Your task to perform on an android device: change notifications settings Image 0: 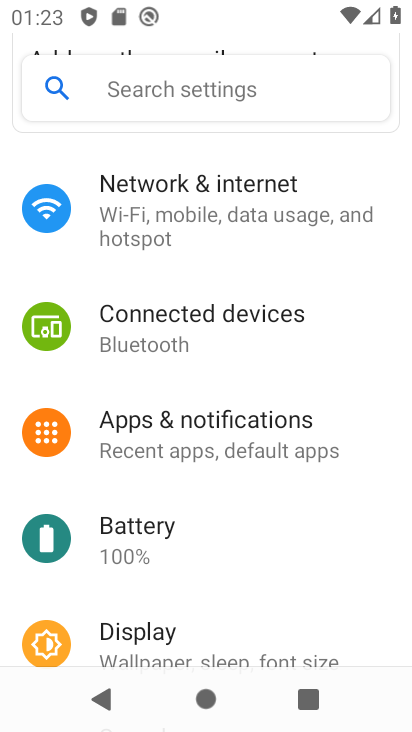
Step 0: drag from (230, 607) to (236, 340)
Your task to perform on an android device: change notifications settings Image 1: 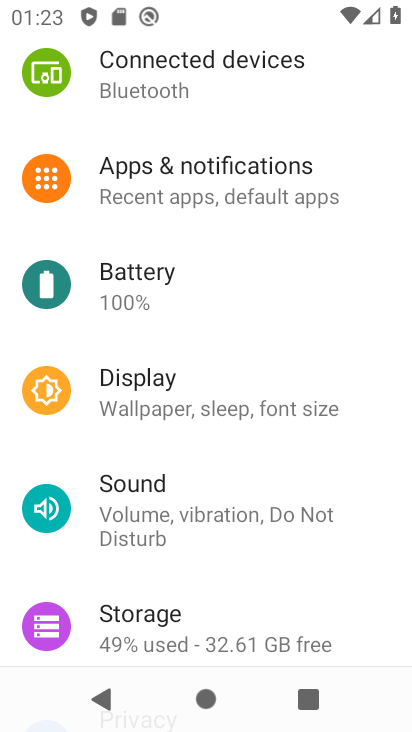
Step 1: click (178, 183)
Your task to perform on an android device: change notifications settings Image 2: 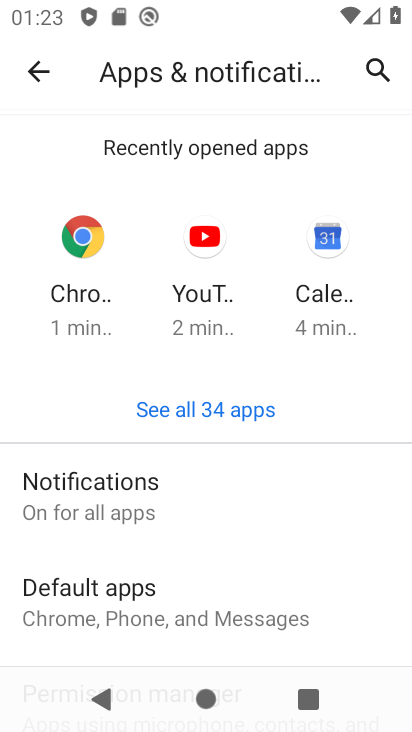
Step 2: click (105, 499)
Your task to perform on an android device: change notifications settings Image 3: 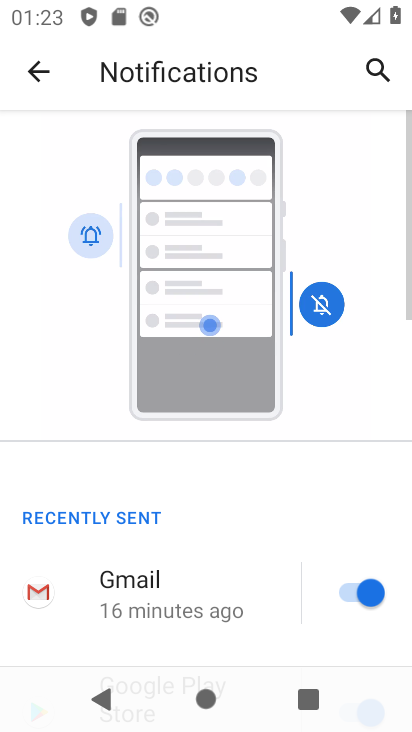
Step 3: task complete